Your task to perform on an android device: Open display settings Image 0: 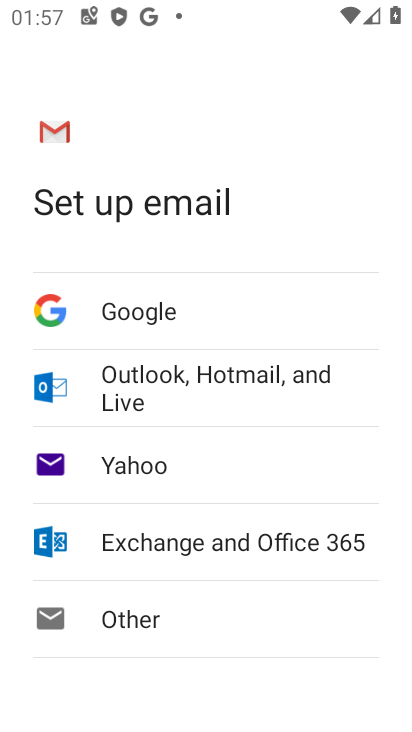
Step 0: press home button
Your task to perform on an android device: Open display settings Image 1: 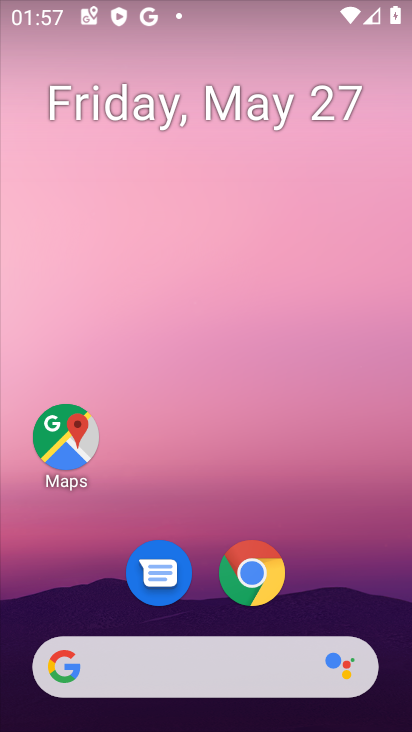
Step 1: drag from (171, 622) to (128, 13)
Your task to perform on an android device: Open display settings Image 2: 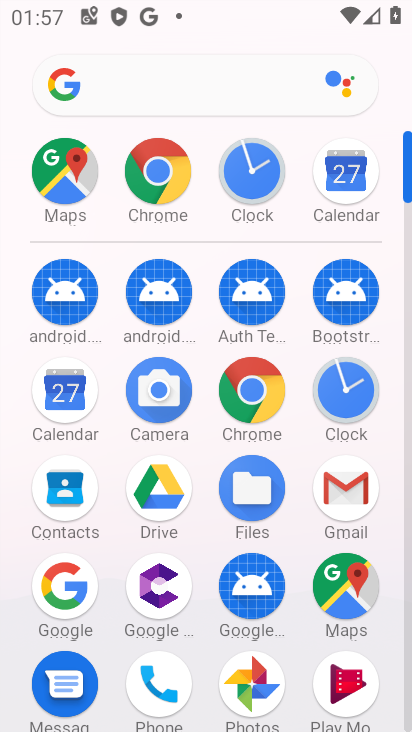
Step 2: drag from (197, 643) to (150, 112)
Your task to perform on an android device: Open display settings Image 3: 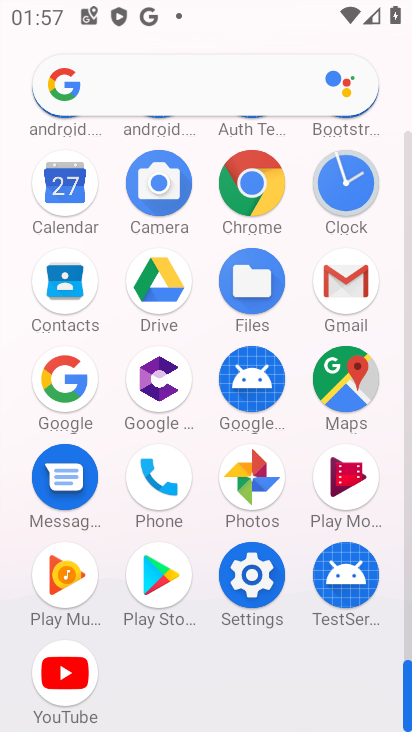
Step 3: click (263, 584)
Your task to perform on an android device: Open display settings Image 4: 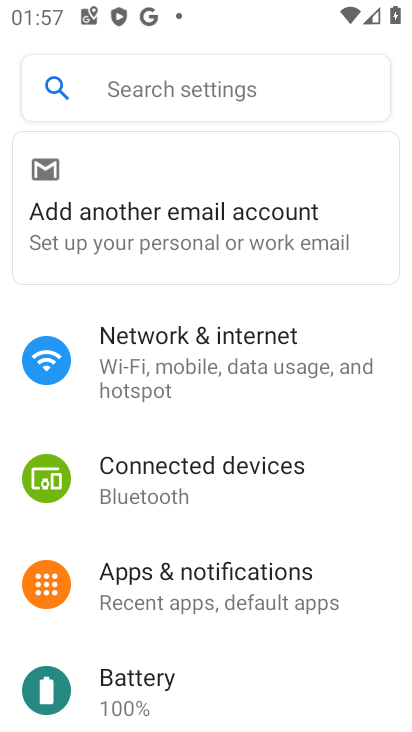
Step 4: drag from (297, 625) to (292, 176)
Your task to perform on an android device: Open display settings Image 5: 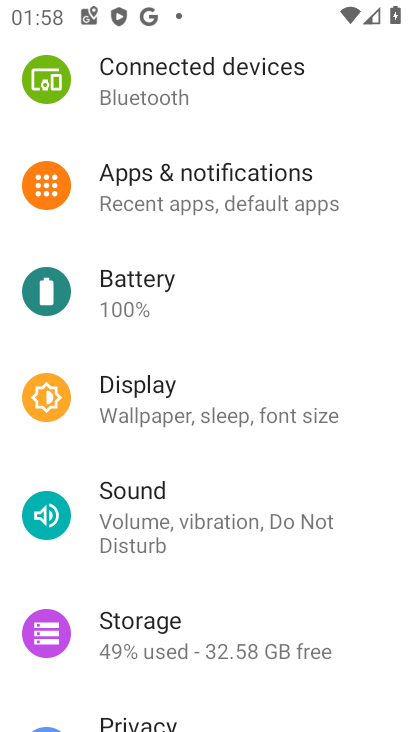
Step 5: click (174, 385)
Your task to perform on an android device: Open display settings Image 6: 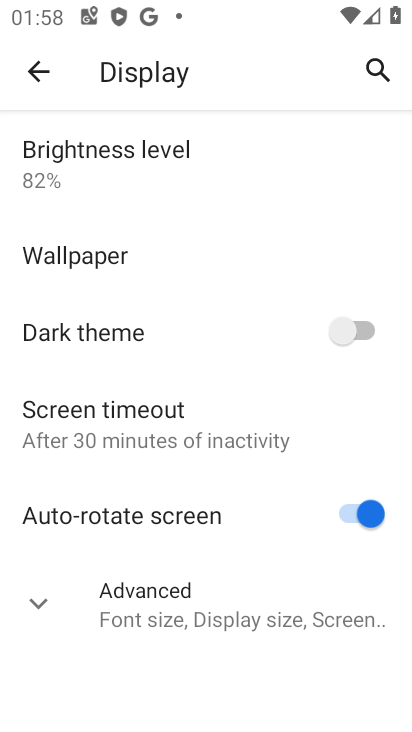
Step 6: task complete